Your task to perform on an android device: clear history in the chrome app Image 0: 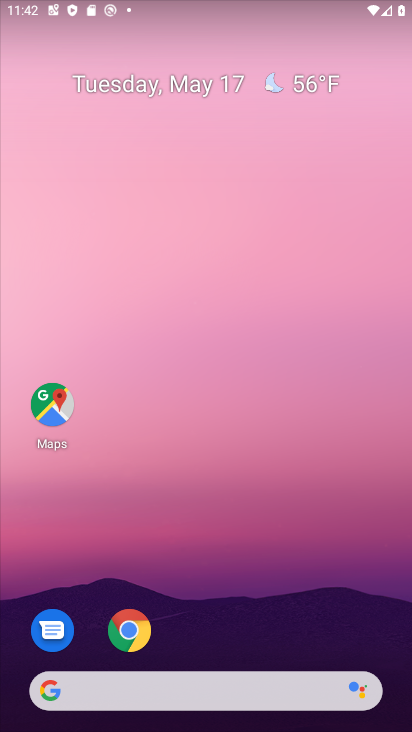
Step 0: drag from (297, 609) to (261, 216)
Your task to perform on an android device: clear history in the chrome app Image 1: 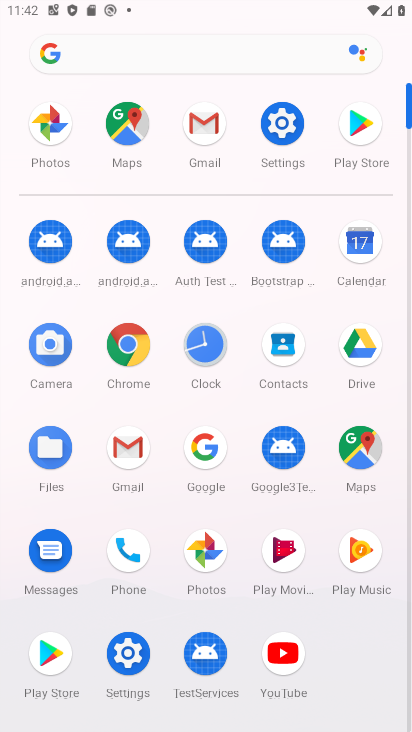
Step 1: click (140, 350)
Your task to perform on an android device: clear history in the chrome app Image 2: 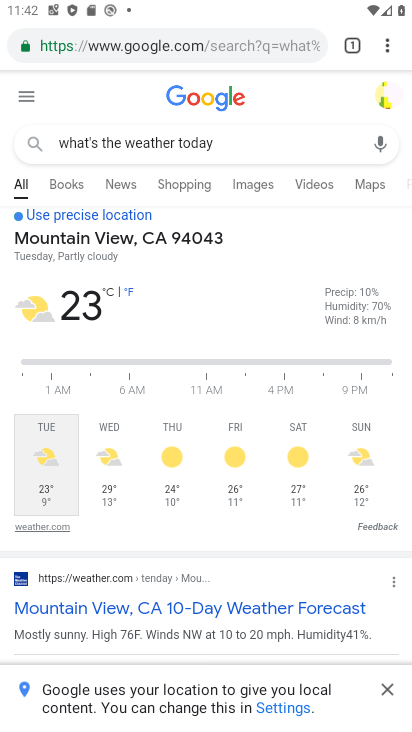
Step 2: drag from (385, 52) to (242, 255)
Your task to perform on an android device: clear history in the chrome app Image 3: 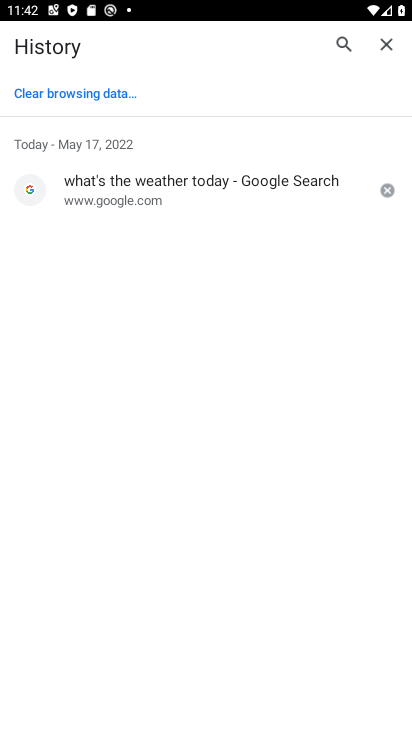
Step 3: click (79, 88)
Your task to perform on an android device: clear history in the chrome app Image 4: 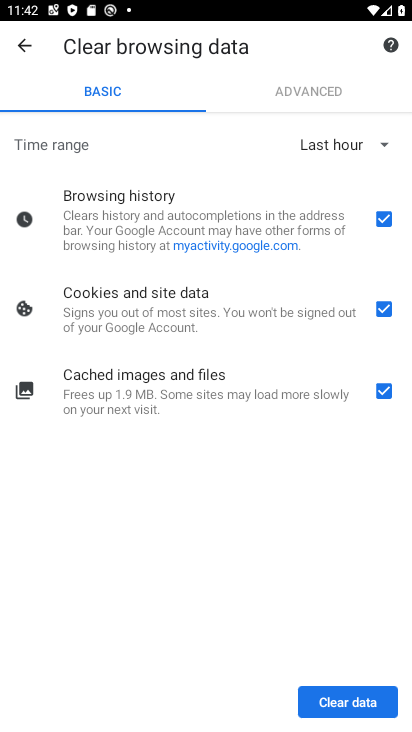
Step 4: click (322, 699)
Your task to perform on an android device: clear history in the chrome app Image 5: 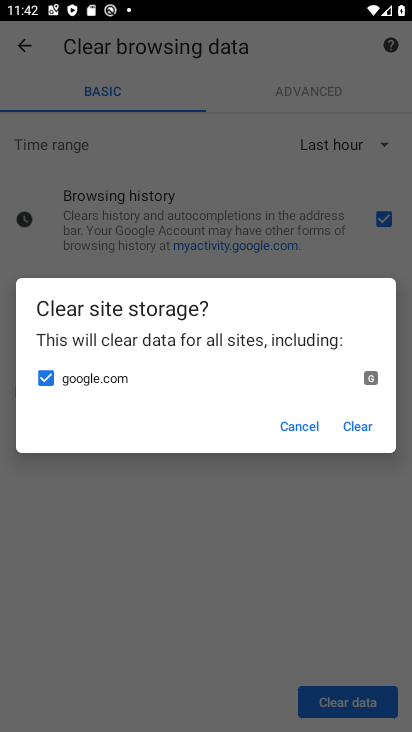
Step 5: click (360, 415)
Your task to perform on an android device: clear history in the chrome app Image 6: 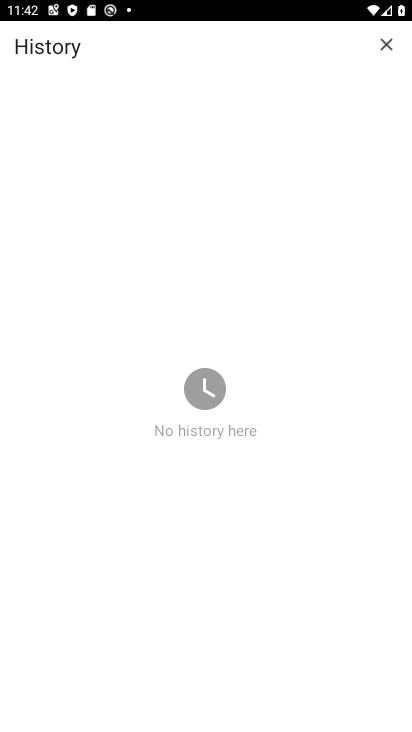
Step 6: task complete